Your task to perform on an android device: Go to calendar. Show me events next week Image 0: 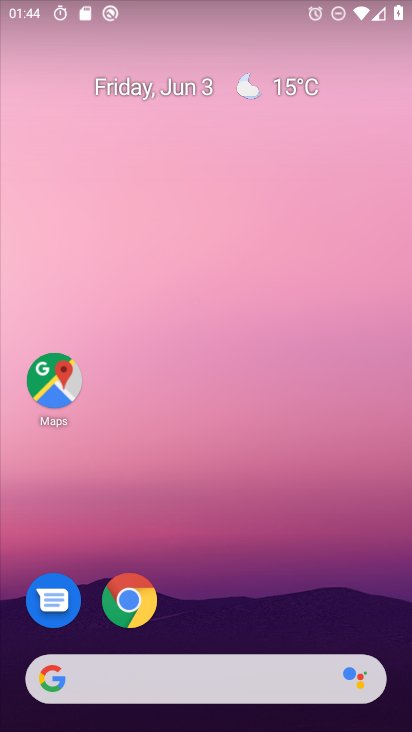
Step 0: drag from (227, 577) to (269, 93)
Your task to perform on an android device: Go to calendar. Show me events next week Image 1: 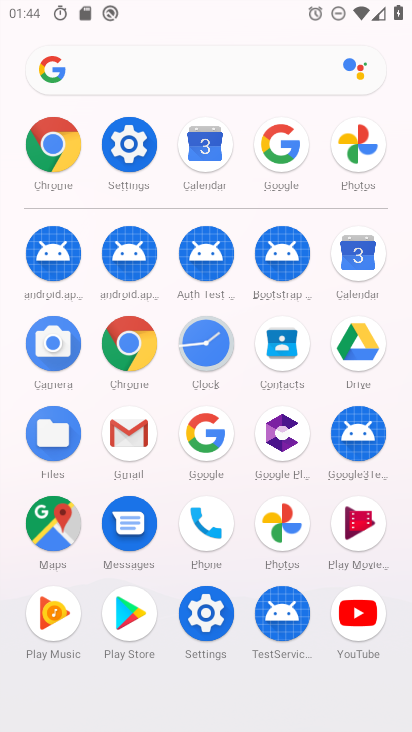
Step 1: click (359, 253)
Your task to perform on an android device: Go to calendar. Show me events next week Image 2: 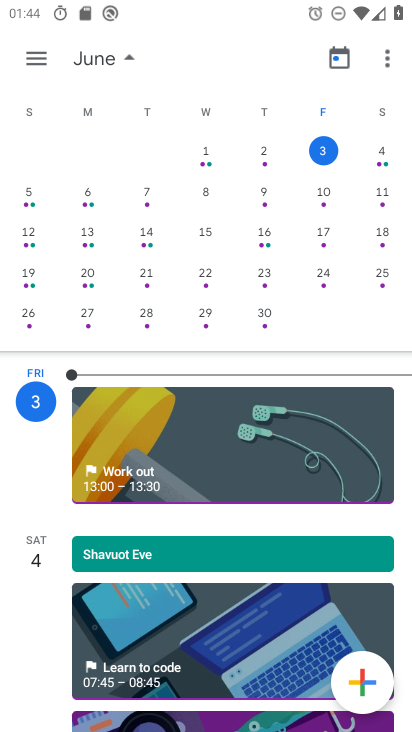
Step 2: drag from (352, 316) to (2, 261)
Your task to perform on an android device: Go to calendar. Show me events next week Image 3: 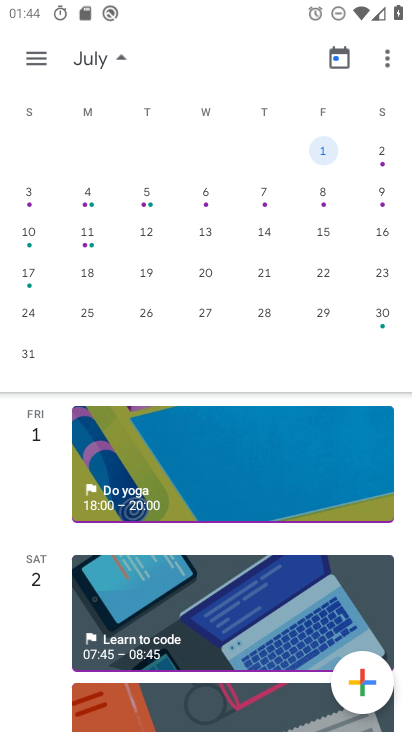
Step 3: drag from (59, 283) to (366, 294)
Your task to perform on an android device: Go to calendar. Show me events next week Image 4: 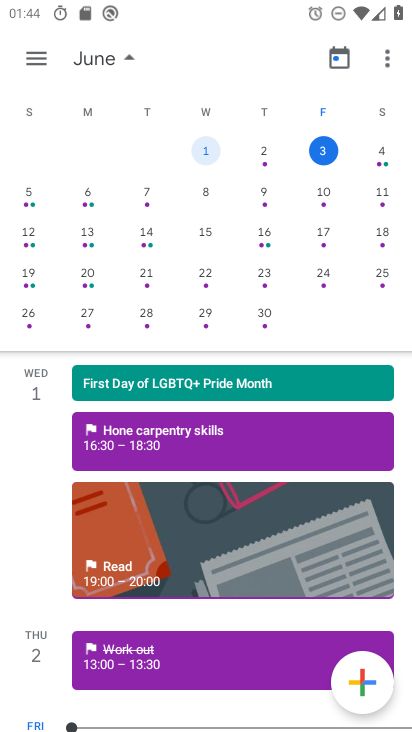
Step 4: click (212, 194)
Your task to perform on an android device: Go to calendar. Show me events next week Image 5: 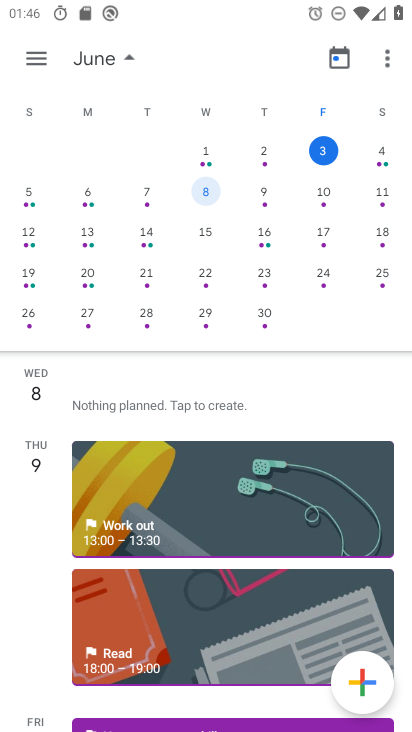
Step 5: task complete